Your task to perform on an android device: Add duracell triple a to the cart on target.com Image 0: 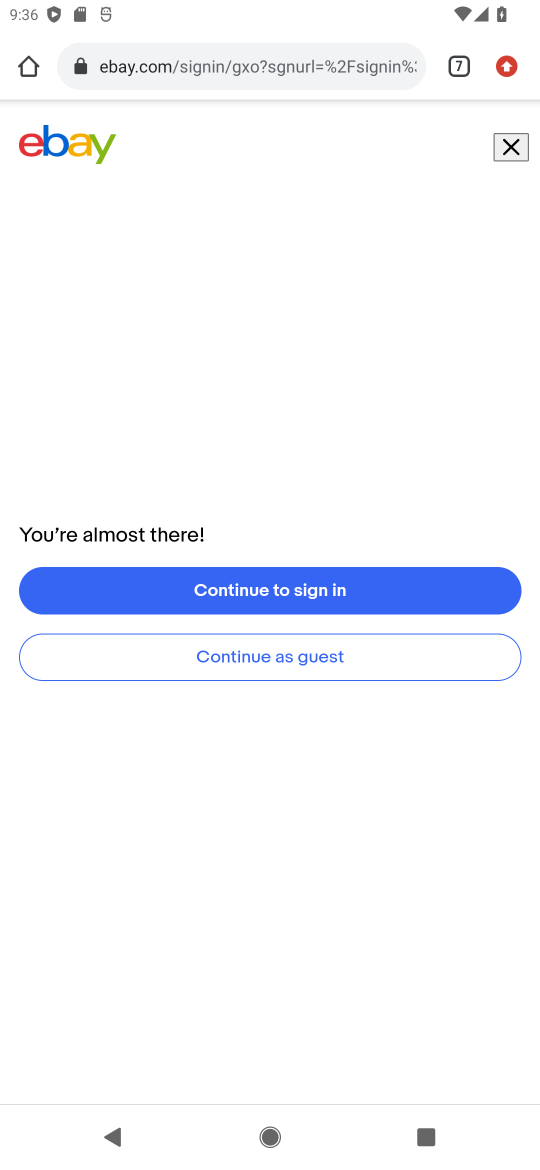
Step 0: click (506, 154)
Your task to perform on an android device: Add duracell triple a to the cart on target.com Image 1: 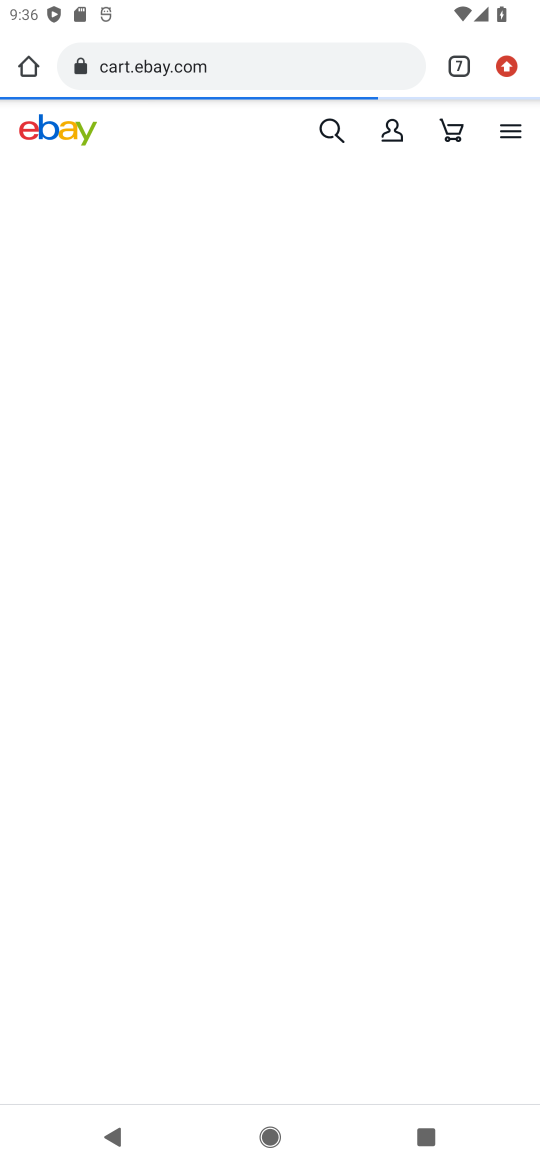
Step 1: click (463, 67)
Your task to perform on an android device: Add duracell triple a to the cart on target.com Image 2: 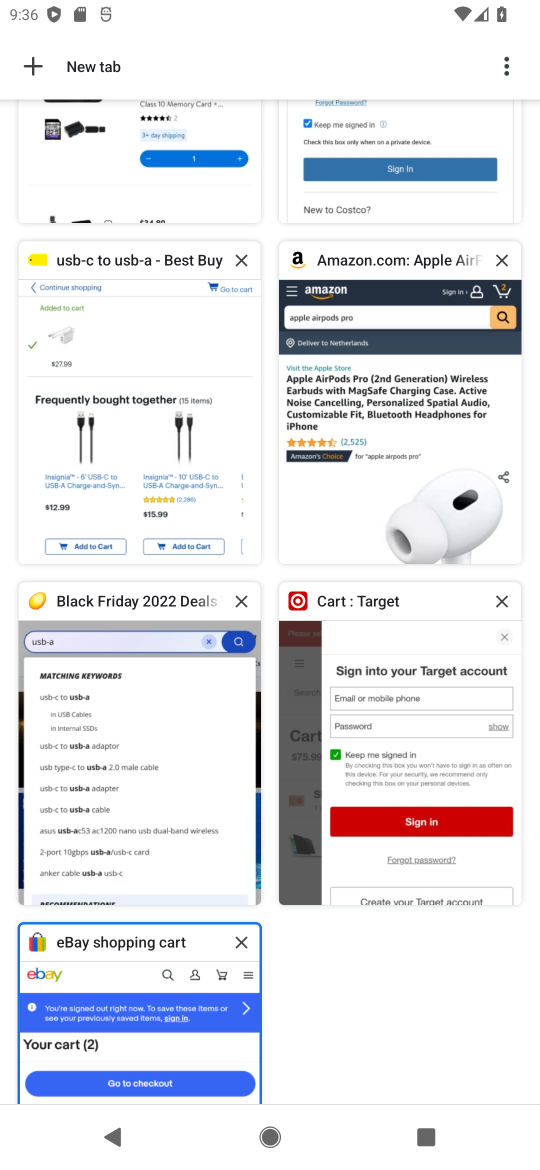
Step 2: click (379, 700)
Your task to perform on an android device: Add duracell triple a to the cart on target.com Image 3: 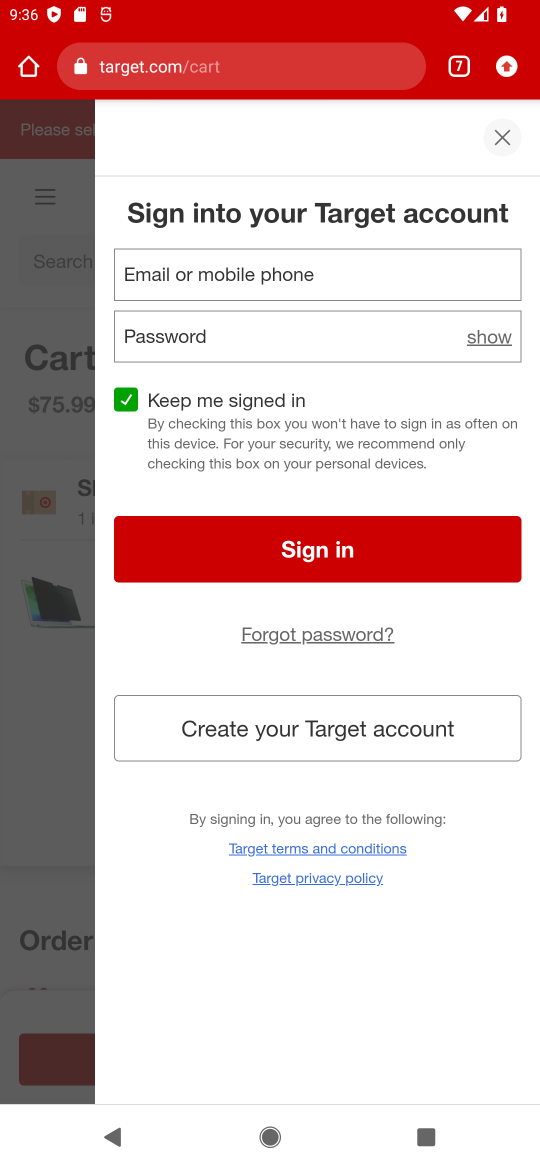
Step 3: click (501, 130)
Your task to perform on an android device: Add duracell triple a to the cart on target.com Image 4: 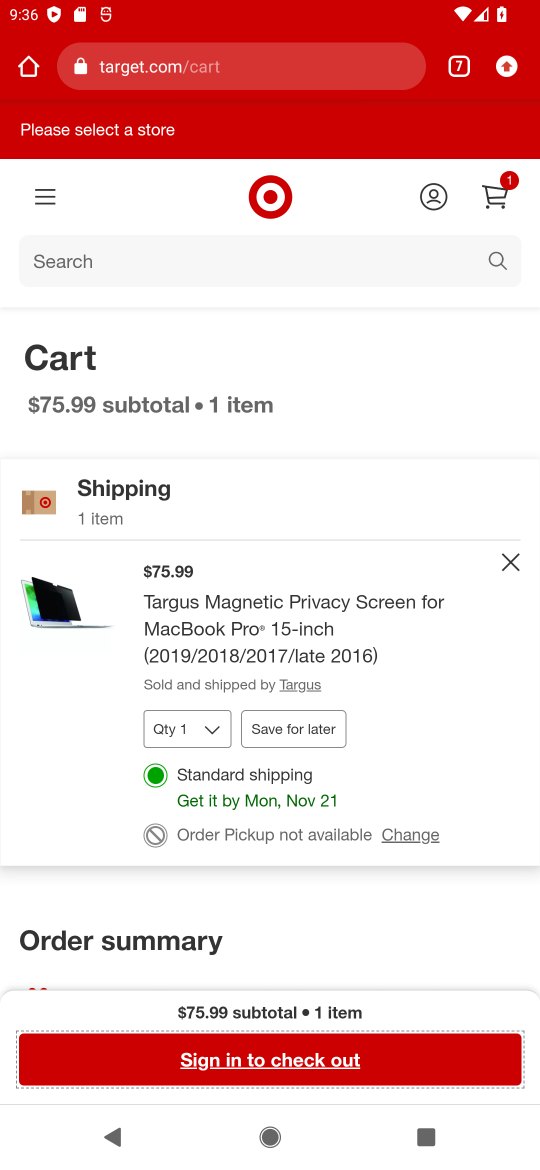
Step 4: click (158, 270)
Your task to perform on an android device: Add duracell triple a to the cart on target.com Image 5: 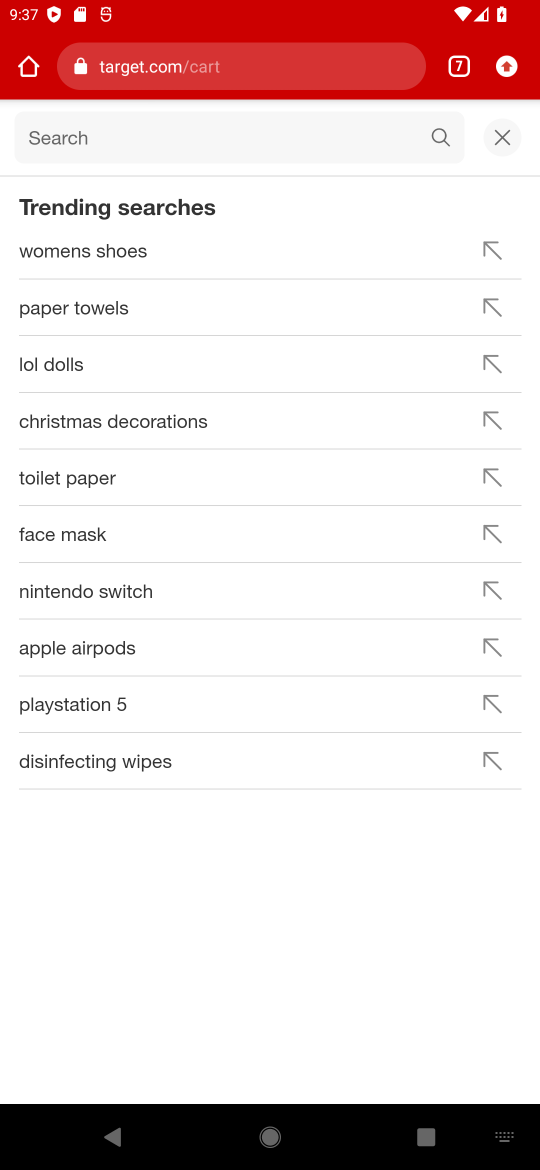
Step 5: type "duracell triple a battery"
Your task to perform on an android device: Add duracell triple a to the cart on target.com Image 6: 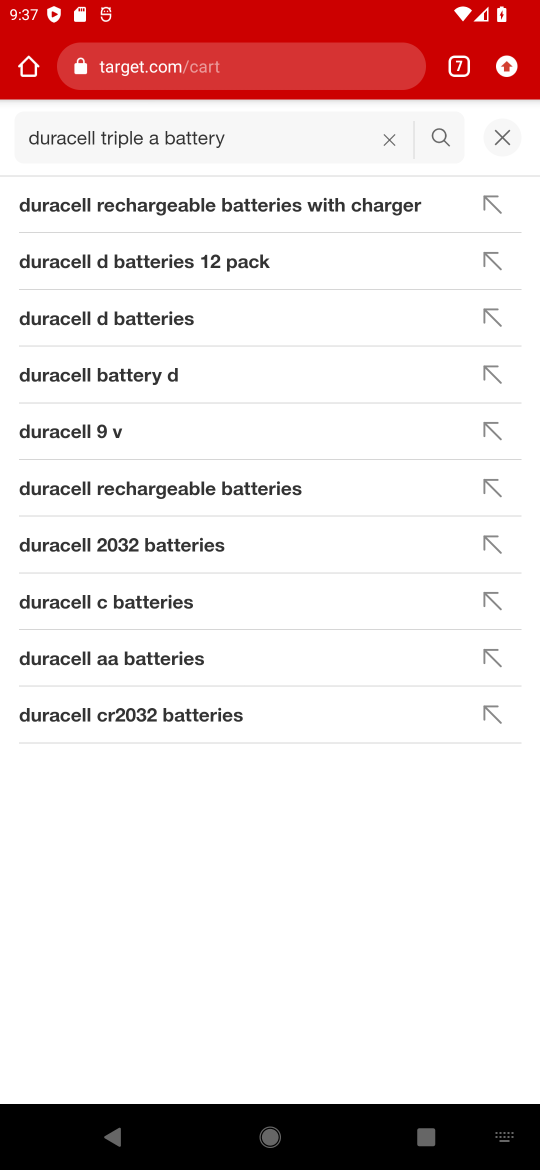
Step 6: click (446, 136)
Your task to perform on an android device: Add duracell triple a to the cart on target.com Image 7: 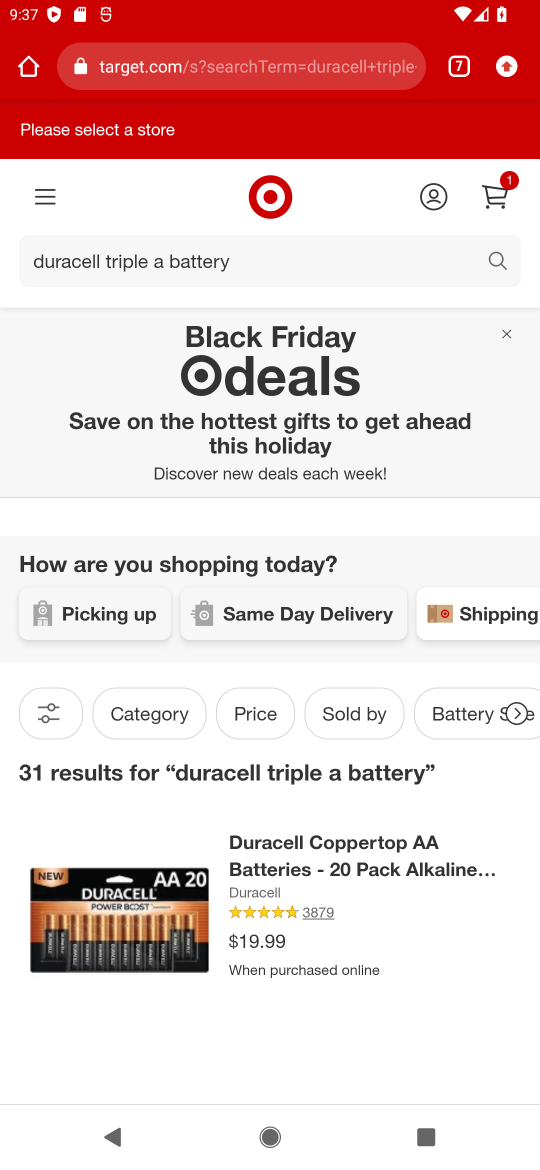
Step 7: drag from (471, 937) to (400, 619)
Your task to perform on an android device: Add duracell triple a to the cart on target.com Image 8: 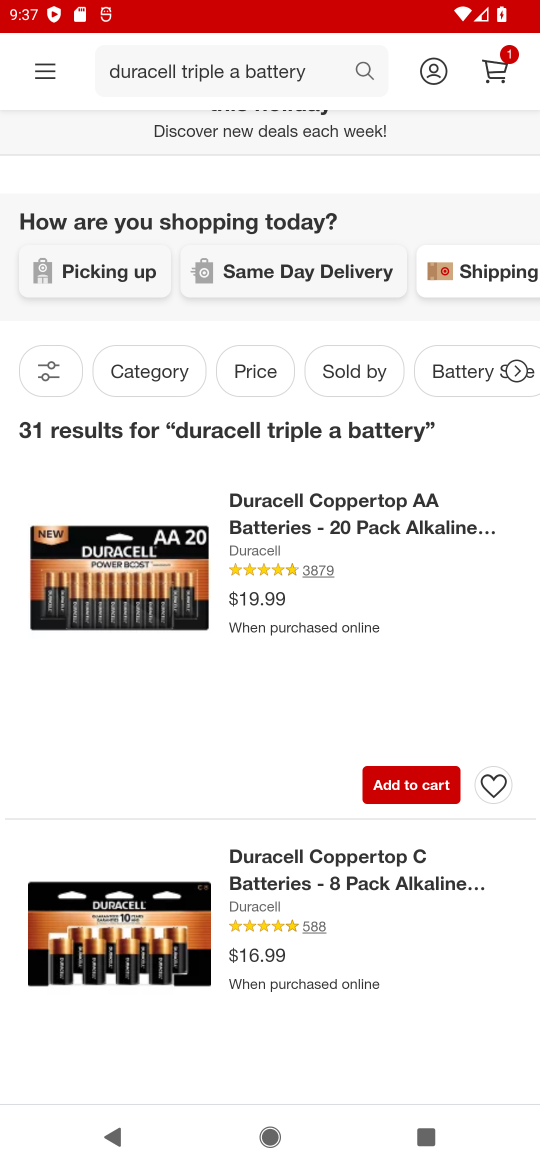
Step 8: click (394, 781)
Your task to perform on an android device: Add duracell triple a to the cart on target.com Image 9: 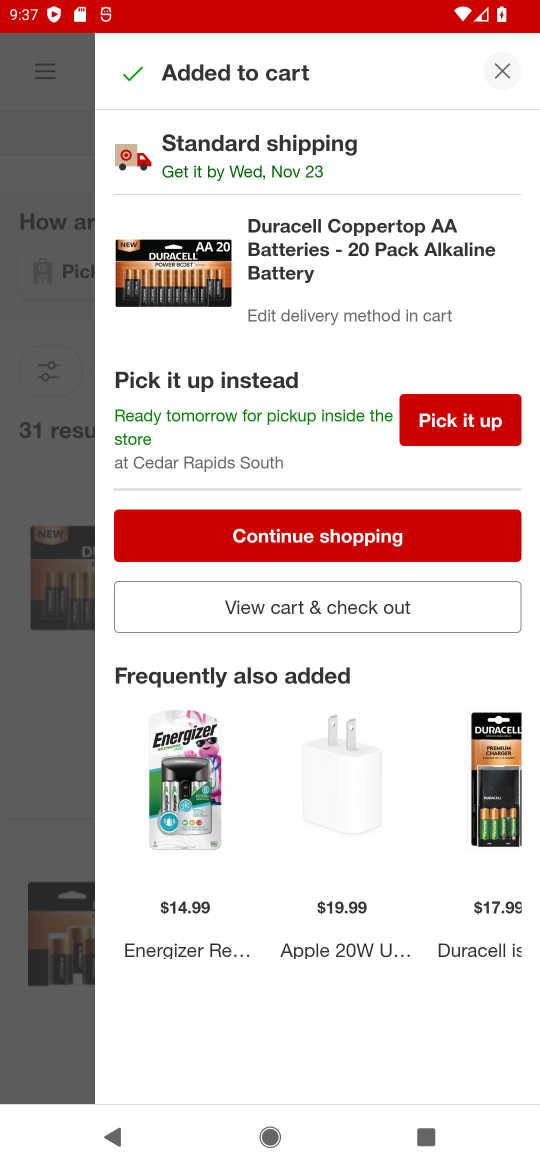
Step 9: task complete